Your task to perform on an android device: turn off translation in the chrome app Image 0: 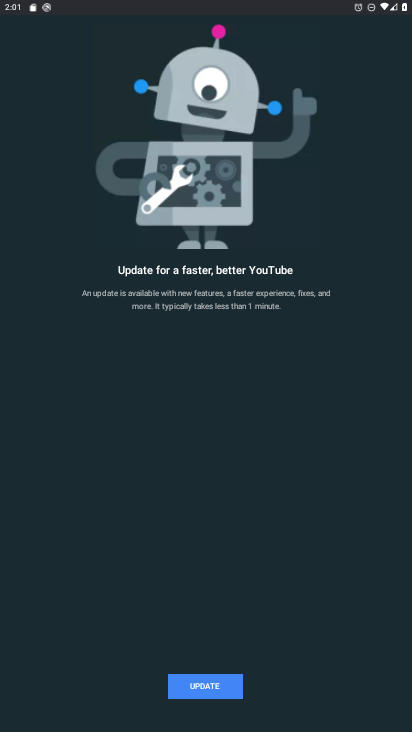
Step 0: press home button
Your task to perform on an android device: turn off translation in the chrome app Image 1: 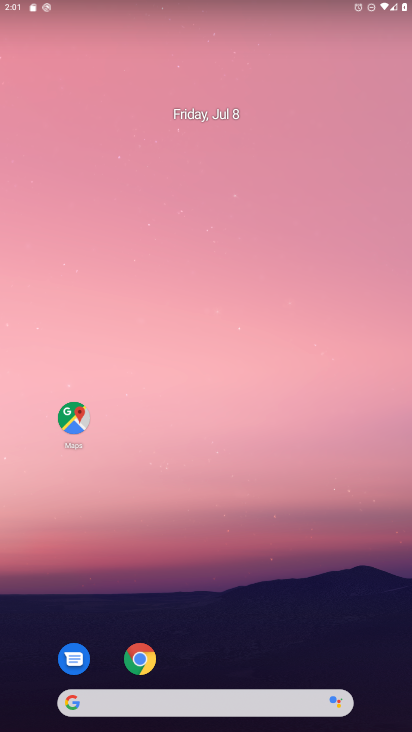
Step 1: click (139, 659)
Your task to perform on an android device: turn off translation in the chrome app Image 2: 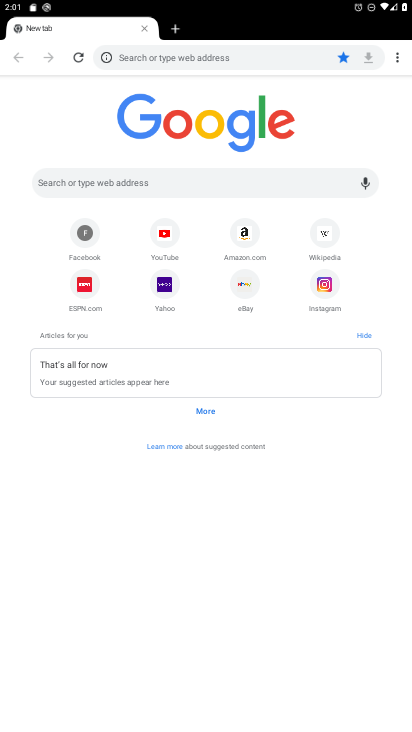
Step 2: click (396, 58)
Your task to perform on an android device: turn off translation in the chrome app Image 3: 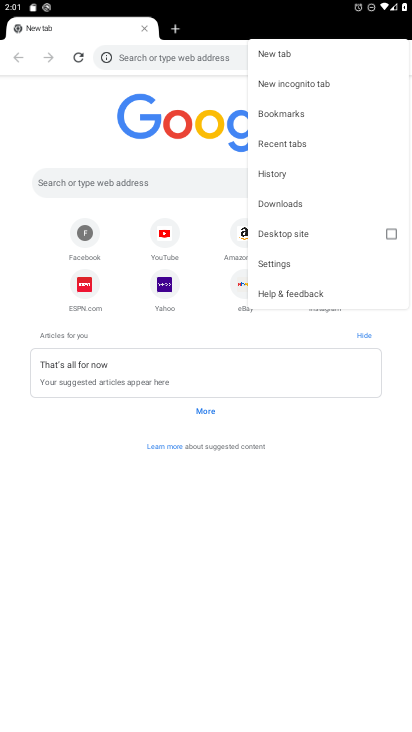
Step 3: click (285, 261)
Your task to perform on an android device: turn off translation in the chrome app Image 4: 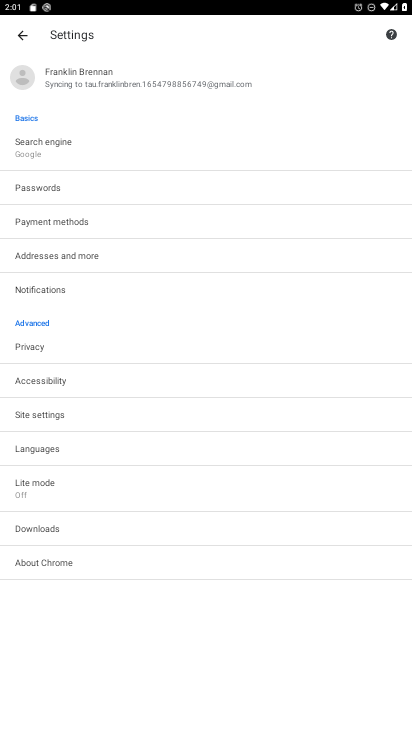
Step 4: click (49, 448)
Your task to perform on an android device: turn off translation in the chrome app Image 5: 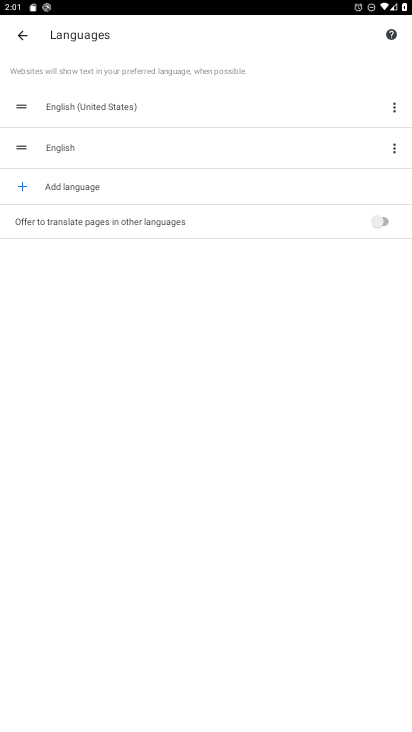
Step 5: task complete